Your task to perform on an android device: turn on wifi Image 0: 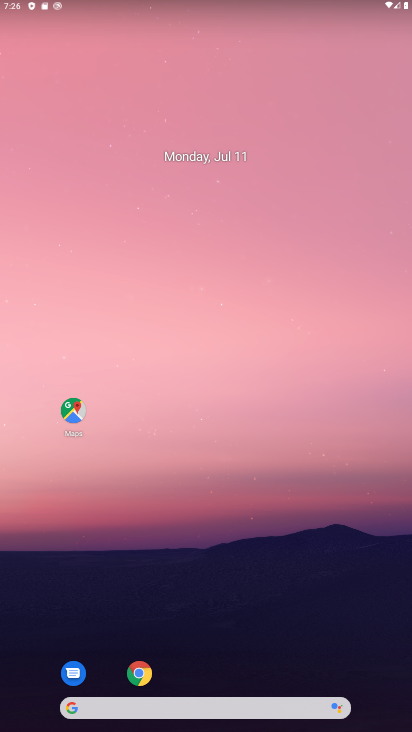
Step 0: drag from (196, 691) to (255, 286)
Your task to perform on an android device: turn on wifi Image 1: 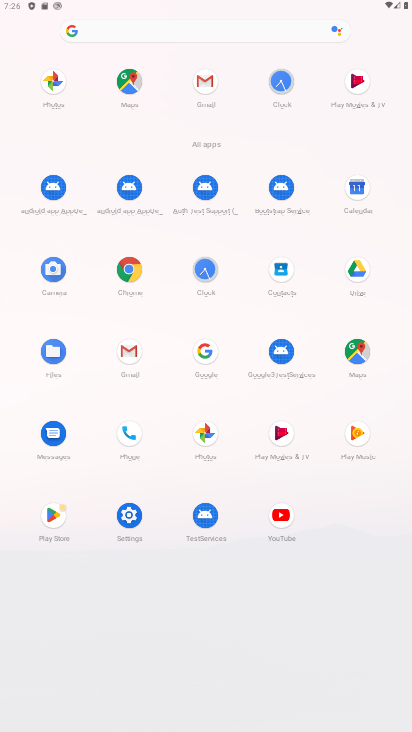
Step 1: click (131, 515)
Your task to perform on an android device: turn on wifi Image 2: 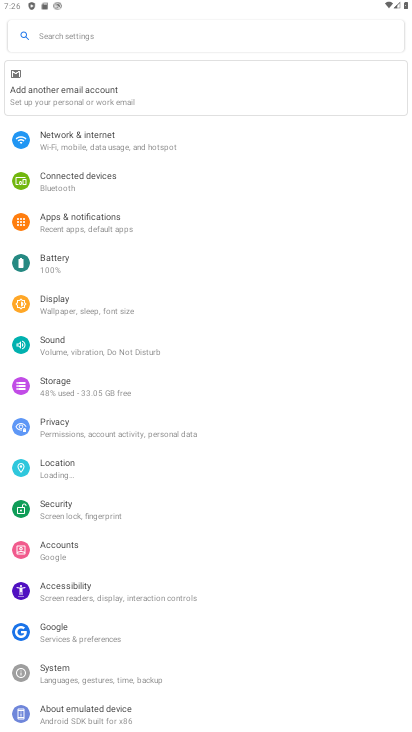
Step 2: click (100, 141)
Your task to perform on an android device: turn on wifi Image 3: 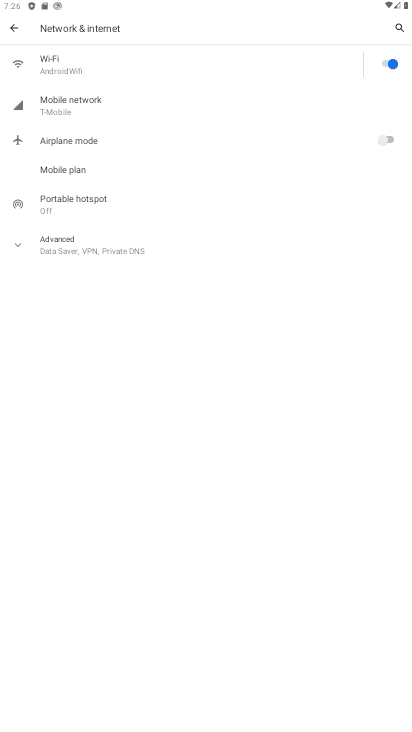
Step 3: task complete